Your task to perform on an android device: open app "Upside-Cash back on gas & food" (install if not already installed), go to login, and select forgot password Image 0: 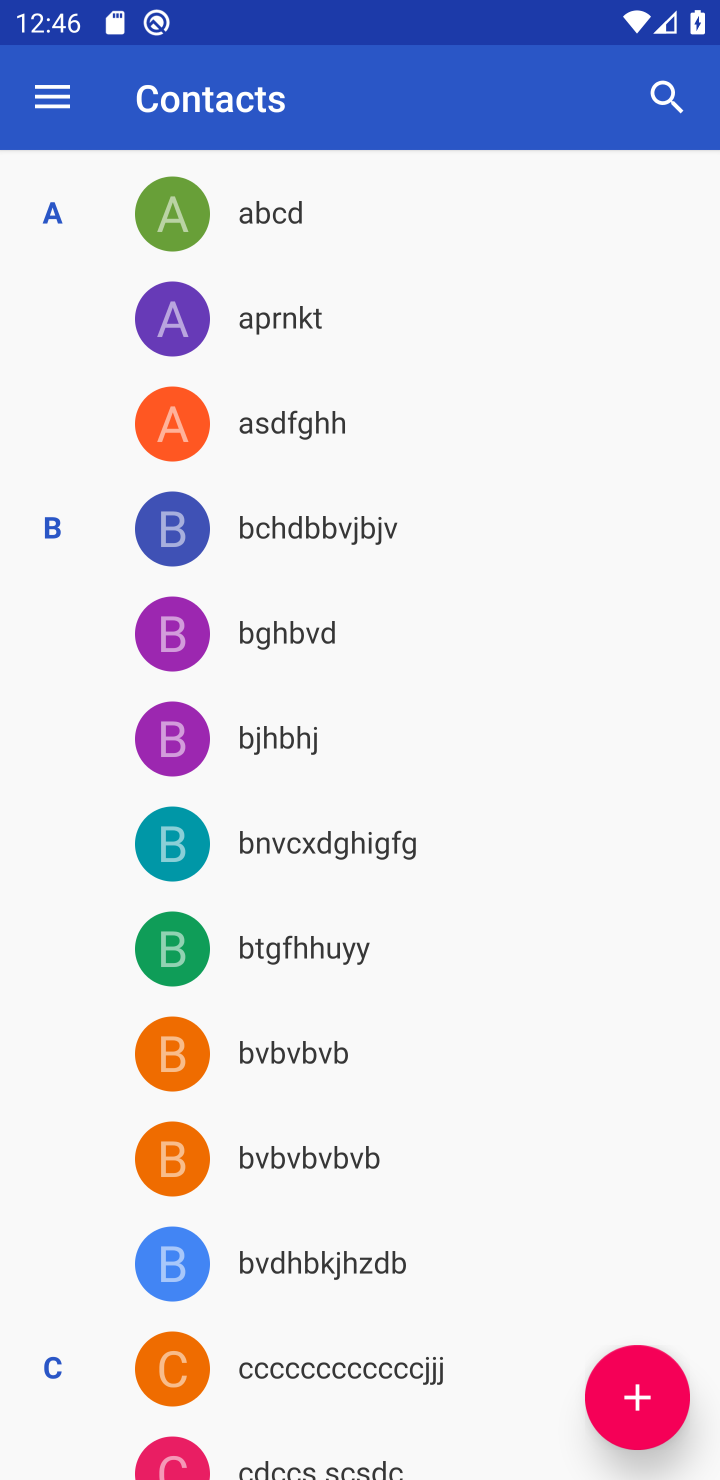
Step 0: press home button
Your task to perform on an android device: open app "Upside-Cash back on gas & food" (install if not already installed), go to login, and select forgot password Image 1: 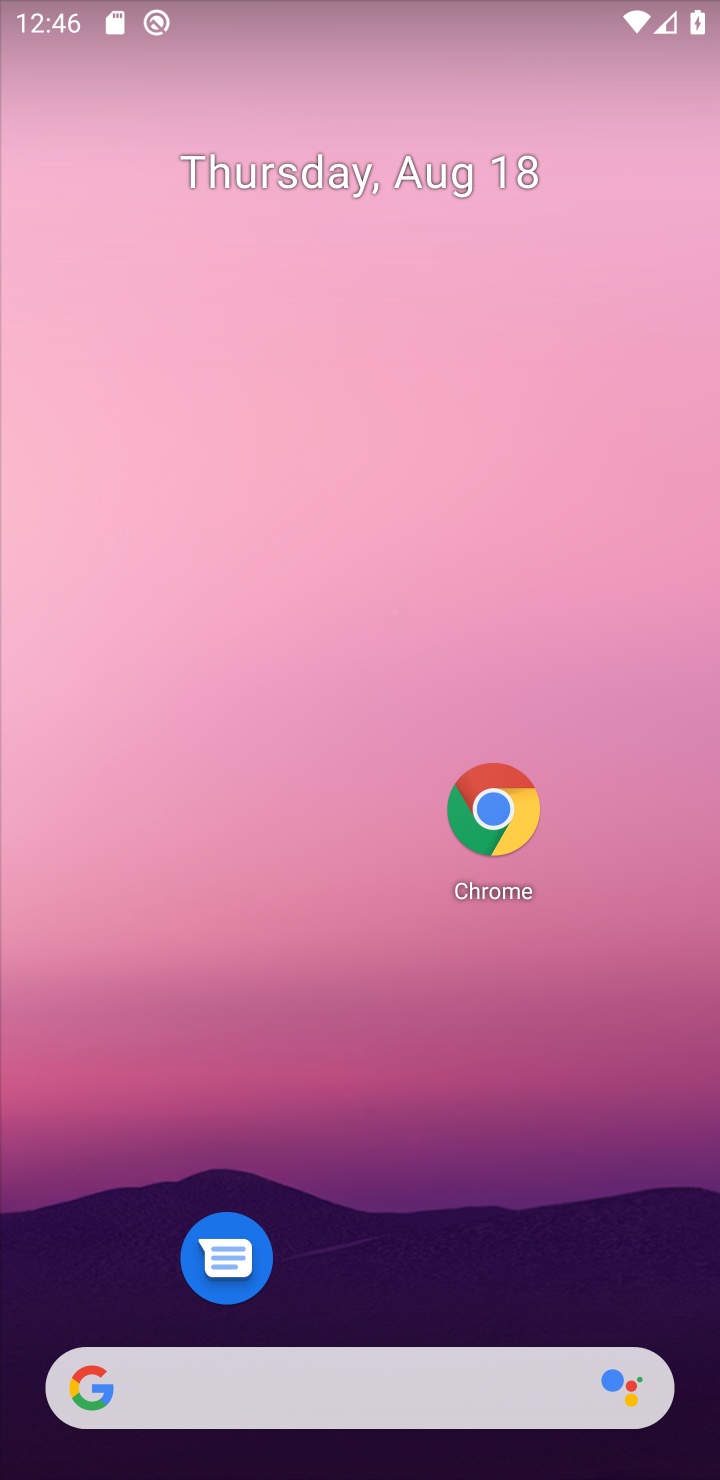
Step 1: drag from (369, 1214) to (405, 350)
Your task to perform on an android device: open app "Upside-Cash back on gas & food" (install if not already installed), go to login, and select forgot password Image 2: 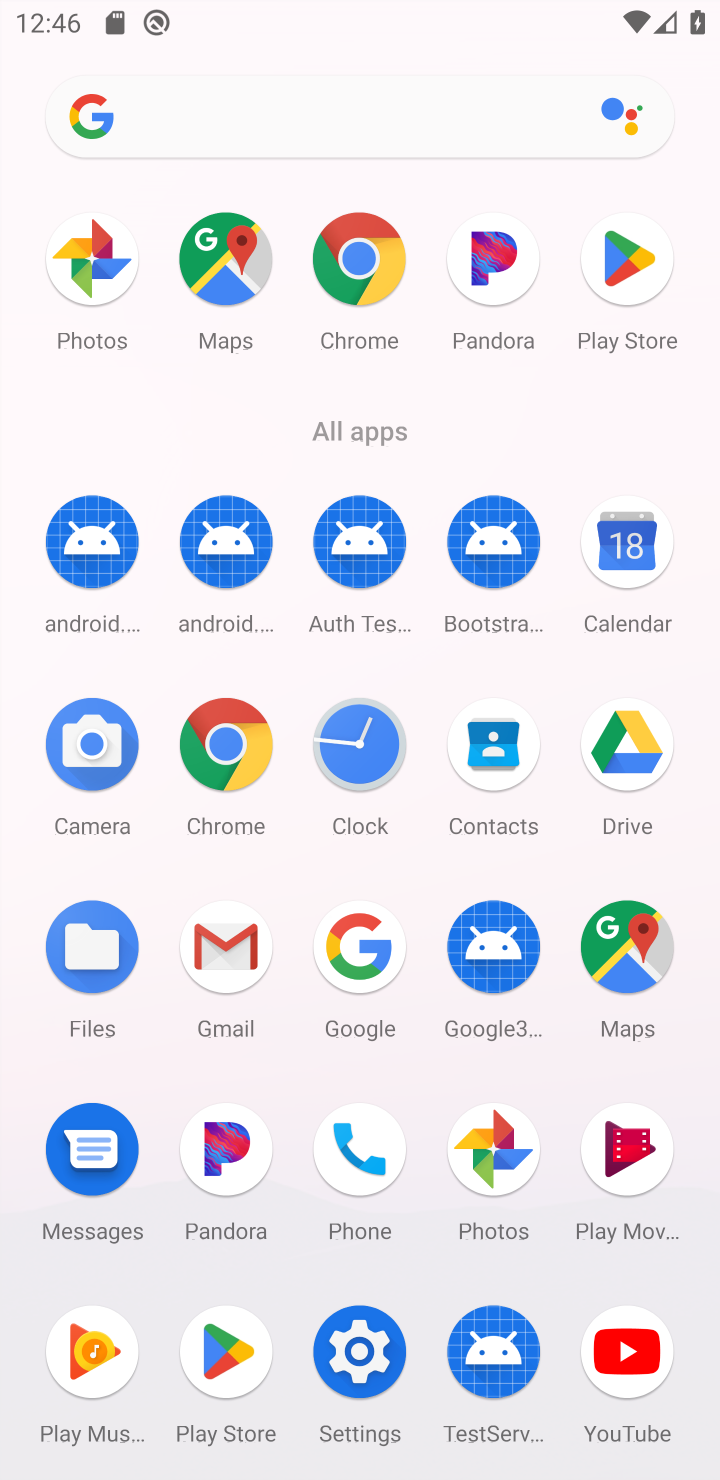
Step 2: click (604, 252)
Your task to perform on an android device: open app "Upside-Cash back on gas & food" (install if not already installed), go to login, and select forgot password Image 3: 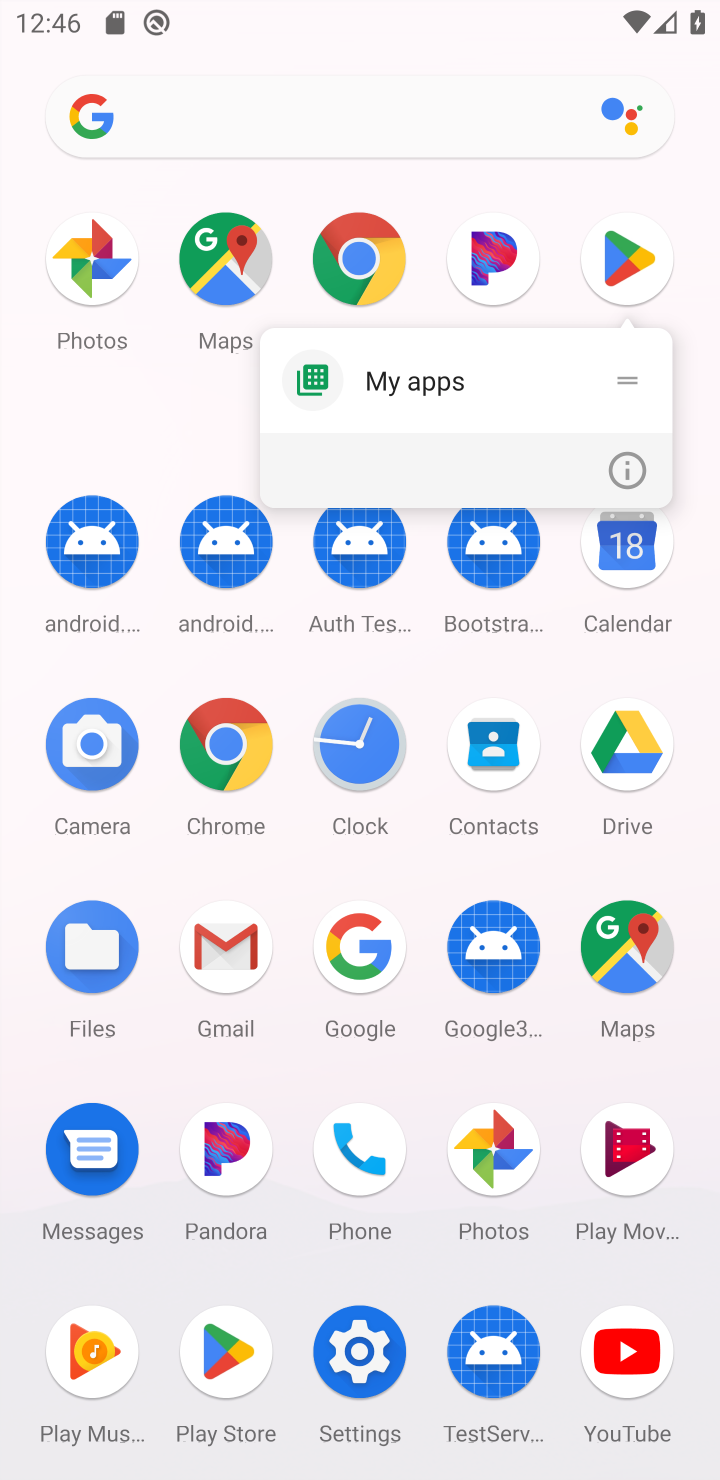
Step 3: click (629, 267)
Your task to perform on an android device: open app "Upside-Cash back on gas & food" (install if not already installed), go to login, and select forgot password Image 4: 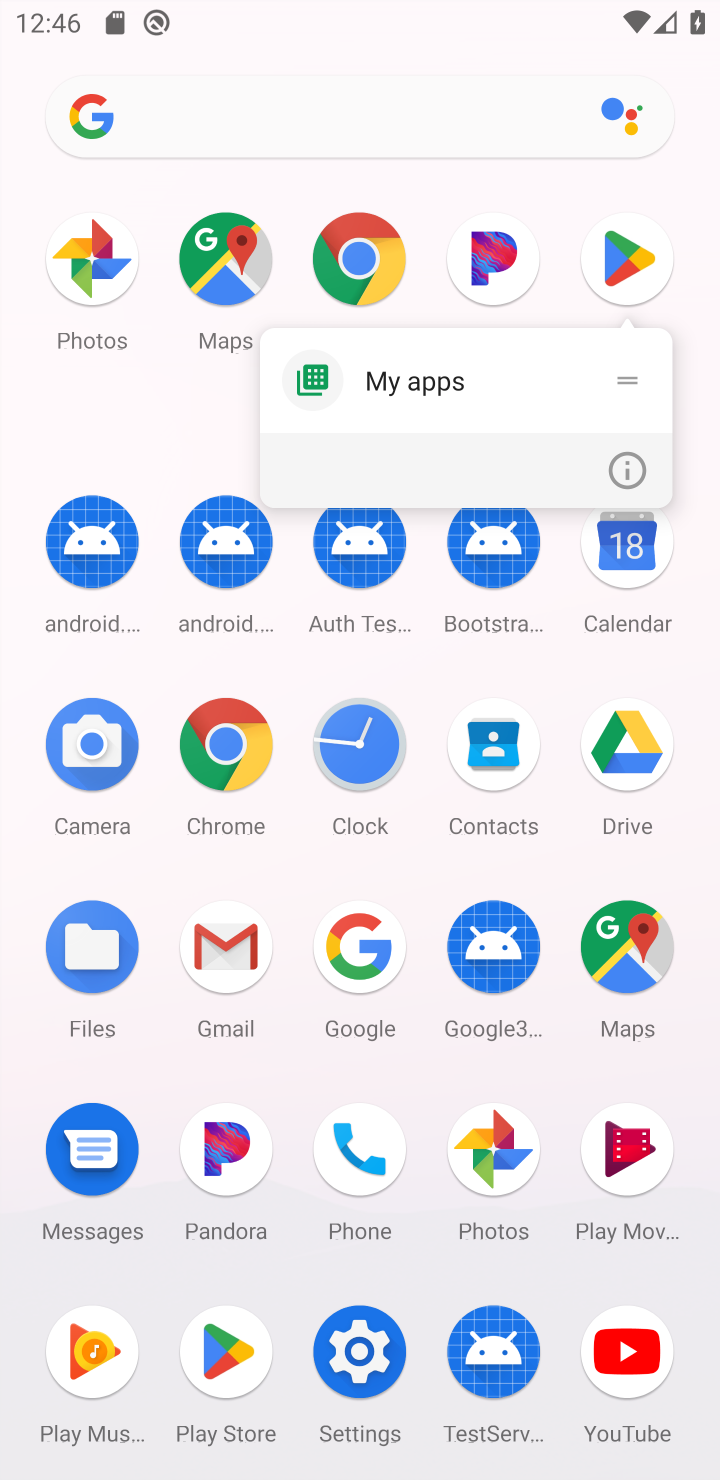
Step 4: click (629, 271)
Your task to perform on an android device: open app "Upside-Cash back on gas & food" (install if not already installed), go to login, and select forgot password Image 5: 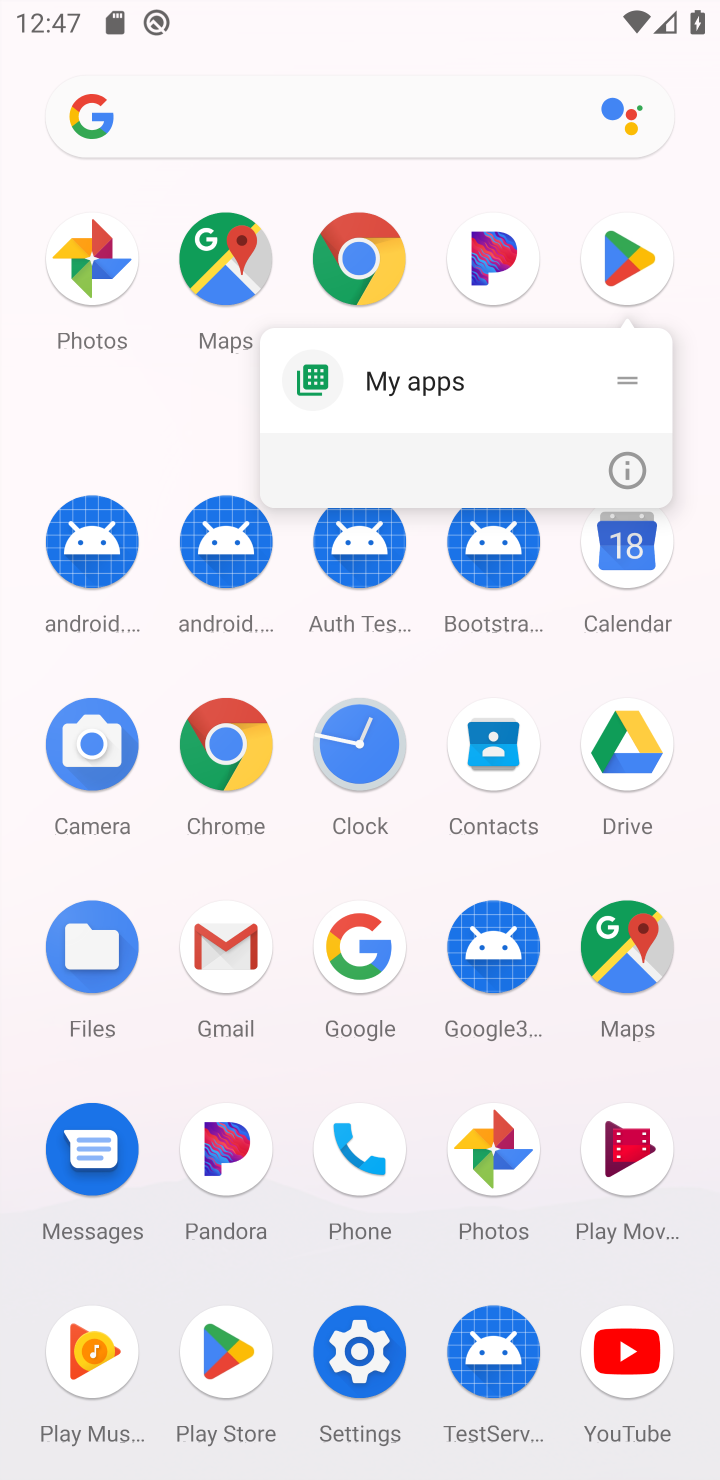
Step 5: click (245, 1343)
Your task to perform on an android device: open app "Upside-Cash back on gas & food" (install if not already installed), go to login, and select forgot password Image 6: 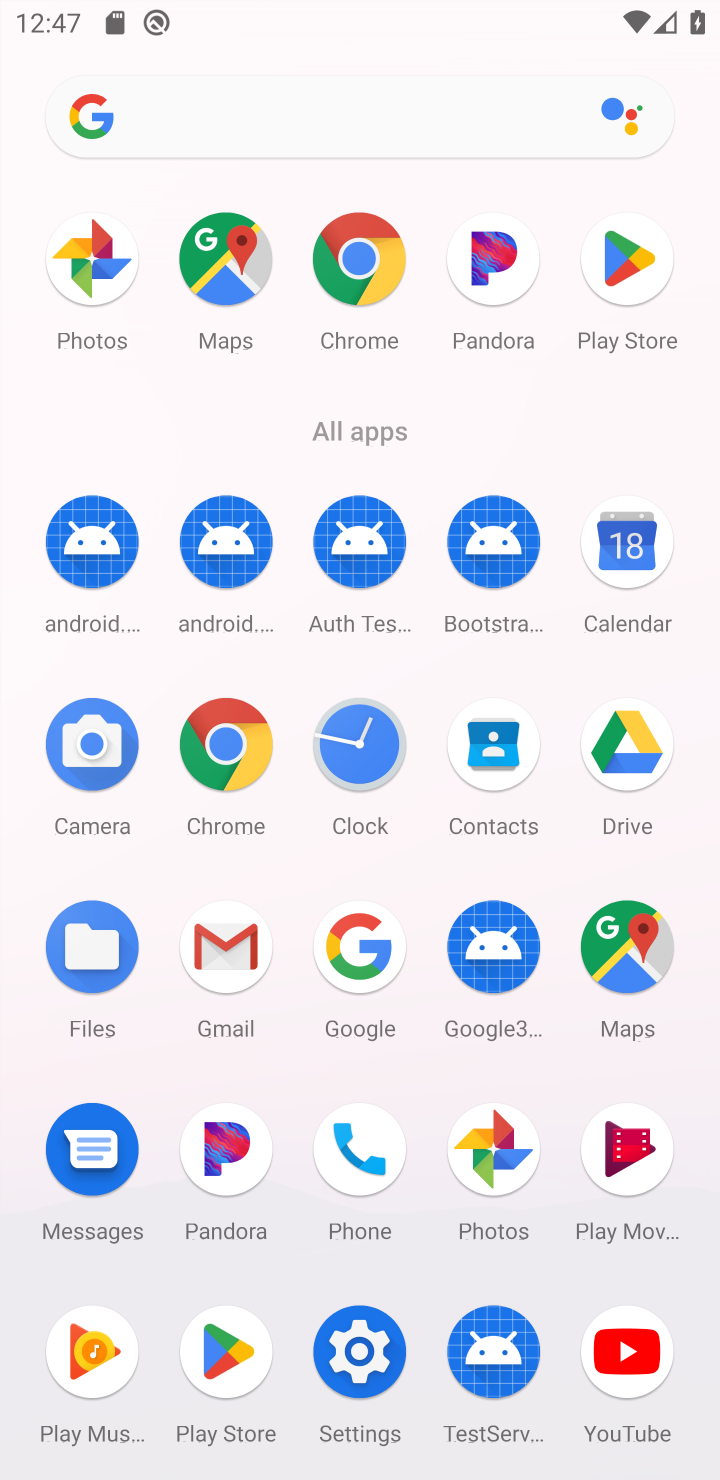
Step 6: click (210, 1327)
Your task to perform on an android device: open app "Upside-Cash back on gas & food" (install if not already installed), go to login, and select forgot password Image 7: 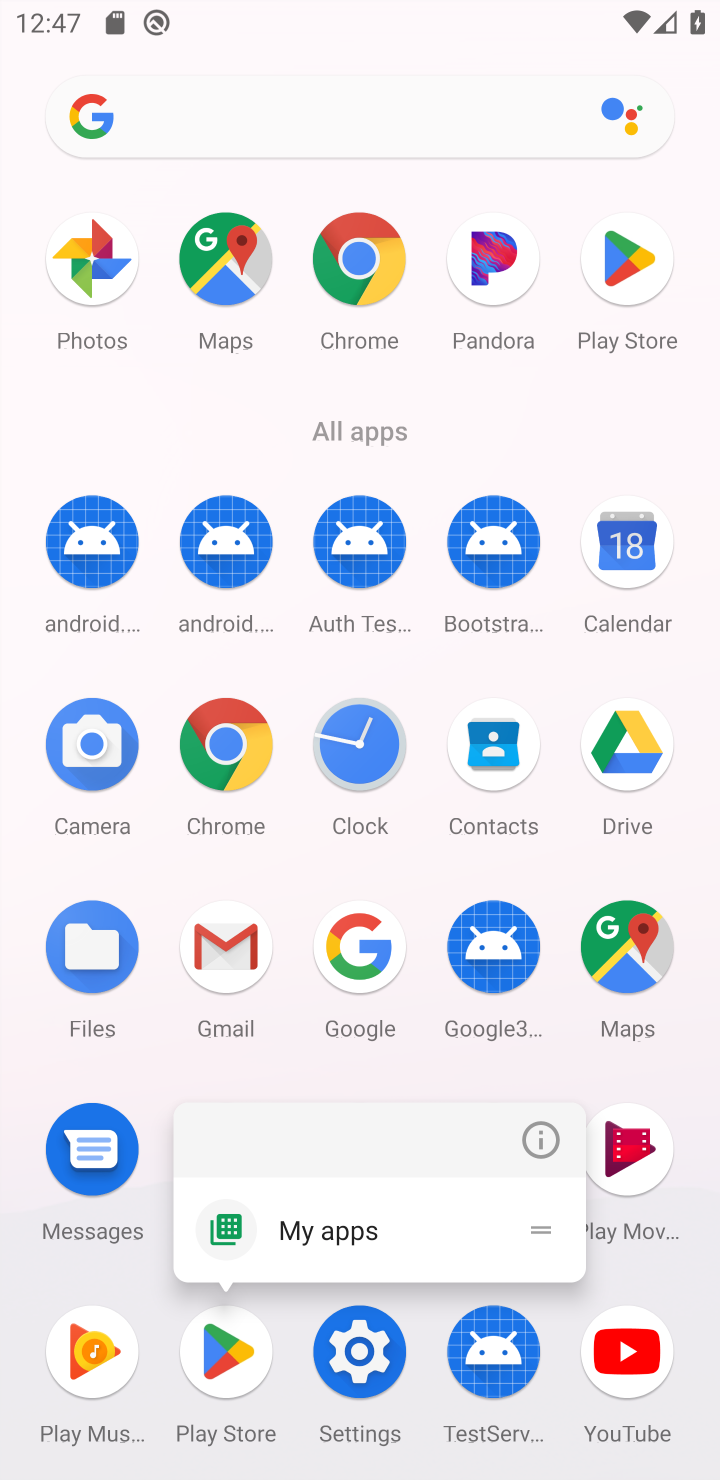
Step 7: click (655, 253)
Your task to perform on an android device: open app "Upside-Cash back on gas & food" (install if not already installed), go to login, and select forgot password Image 8: 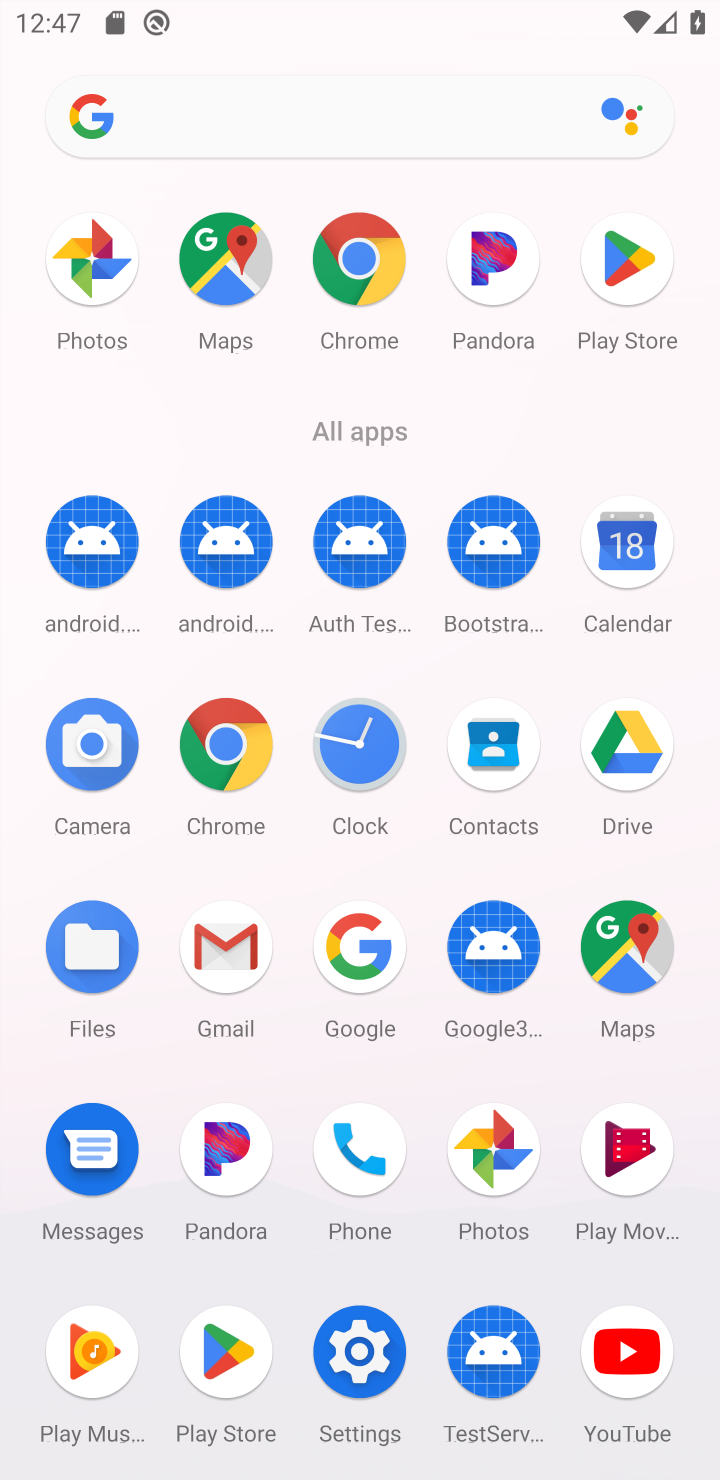
Step 8: click (626, 272)
Your task to perform on an android device: open app "Upside-Cash back on gas & food" (install if not already installed), go to login, and select forgot password Image 9: 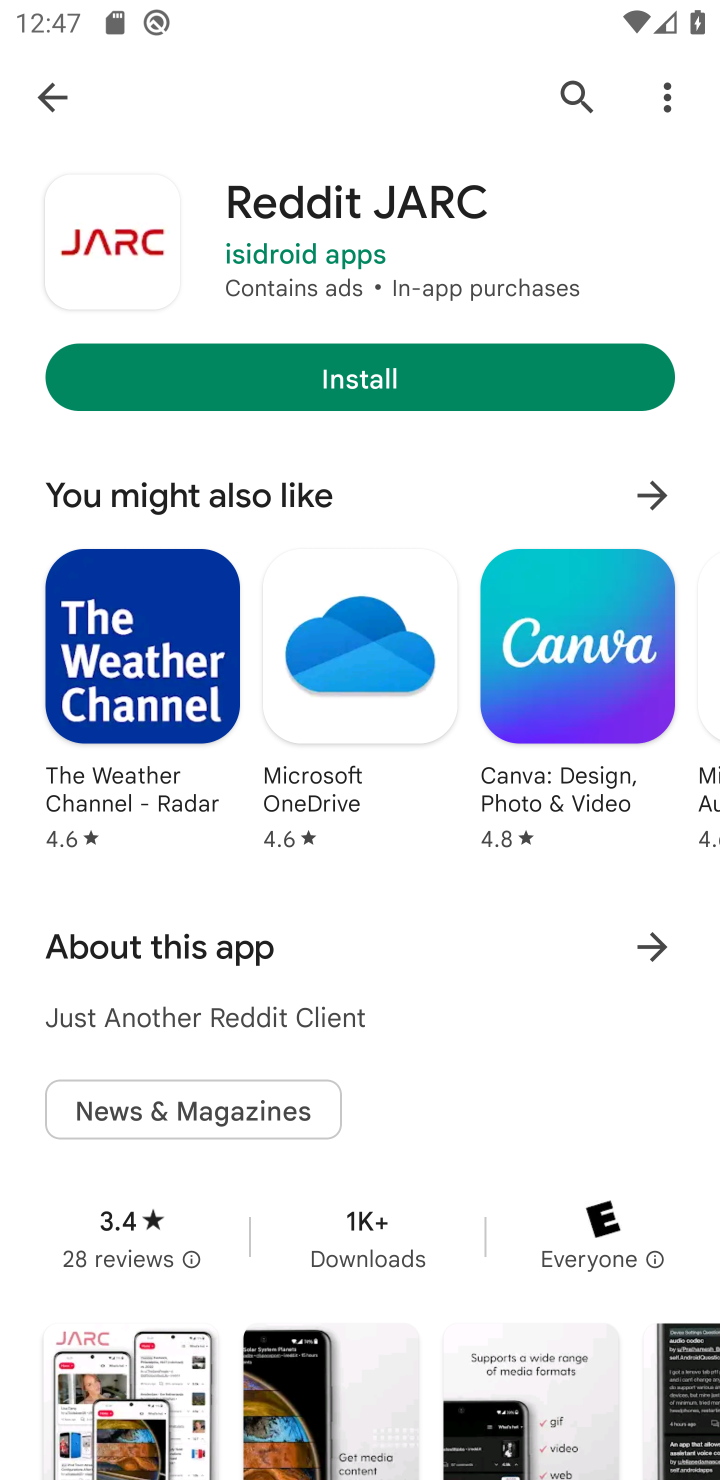
Step 9: click (39, 94)
Your task to perform on an android device: open app "Upside-Cash back on gas & food" (install if not already installed), go to login, and select forgot password Image 10: 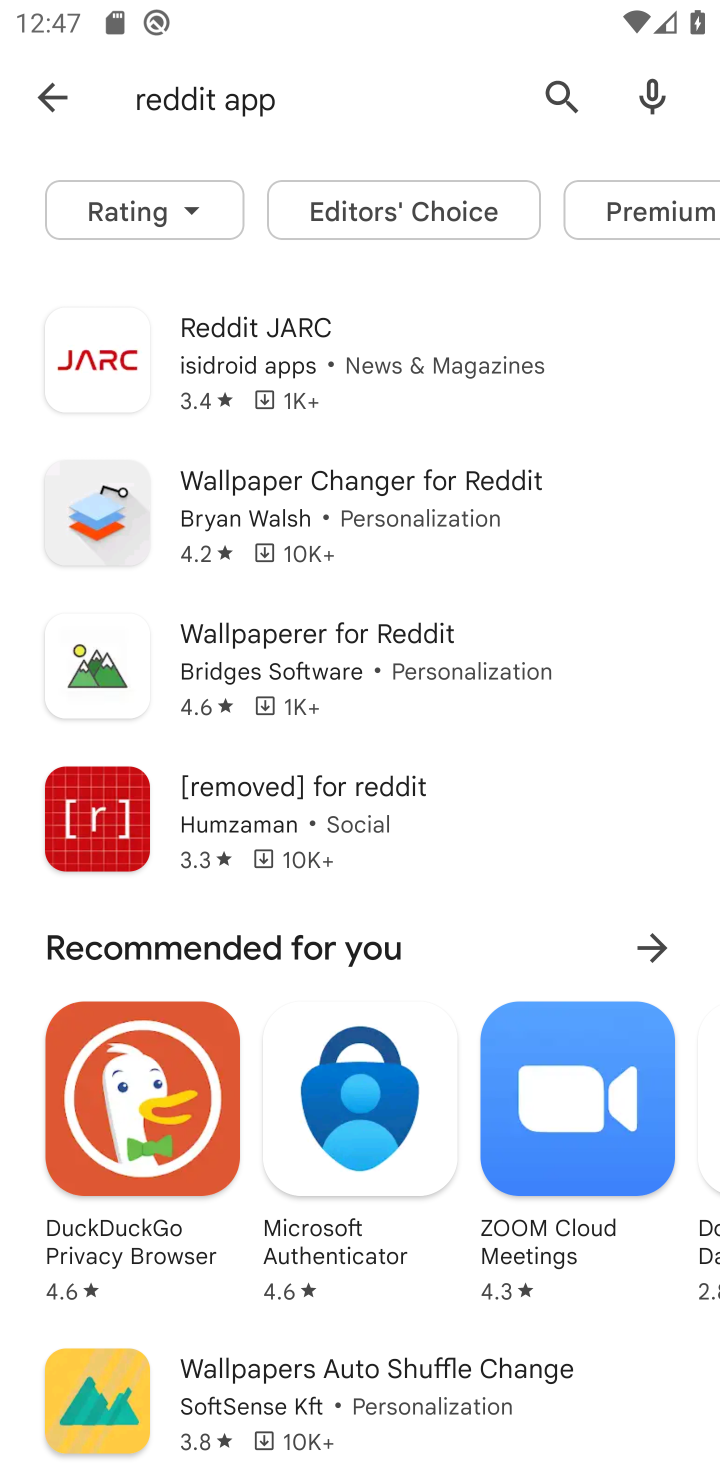
Step 10: click (39, 94)
Your task to perform on an android device: open app "Upside-Cash back on gas & food" (install if not already installed), go to login, and select forgot password Image 11: 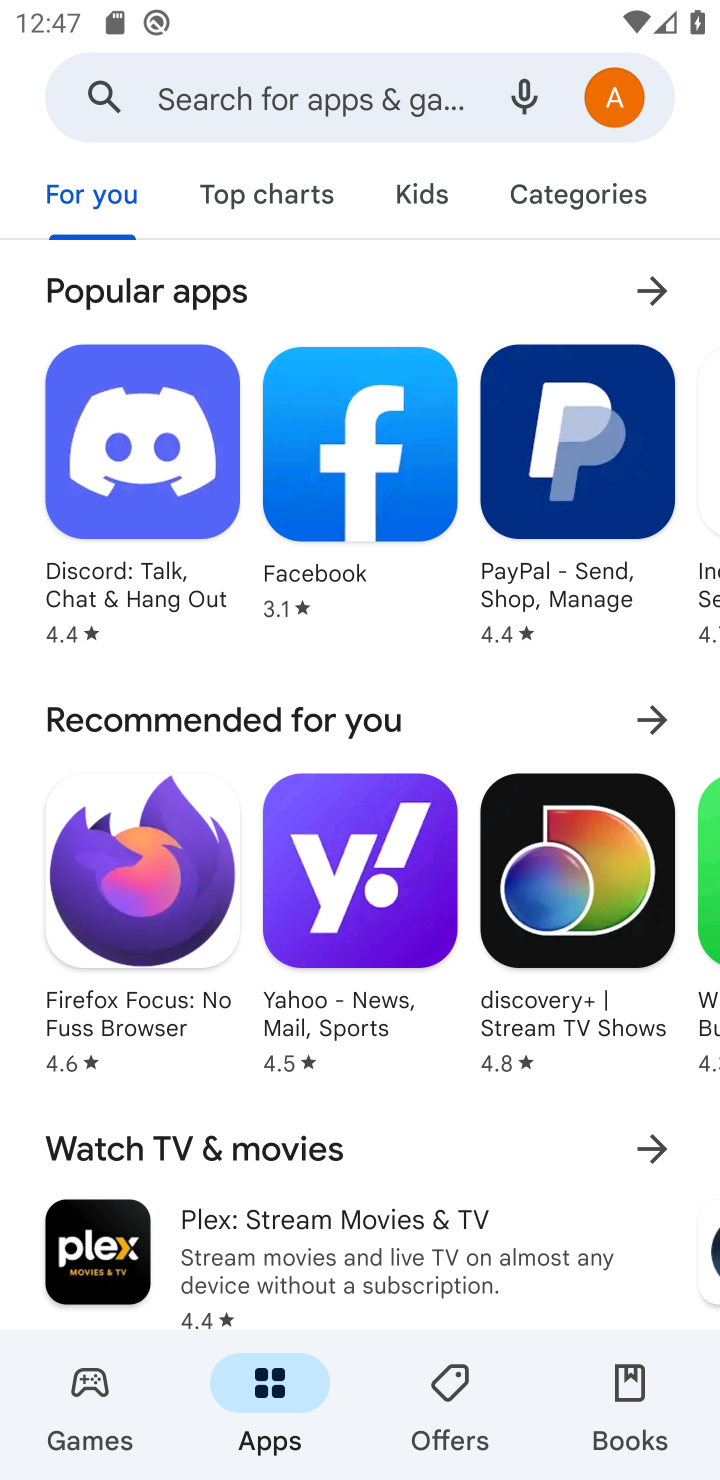
Step 11: click (346, 83)
Your task to perform on an android device: open app "Upside-Cash back on gas & food" (install if not already installed), go to login, and select forgot password Image 12: 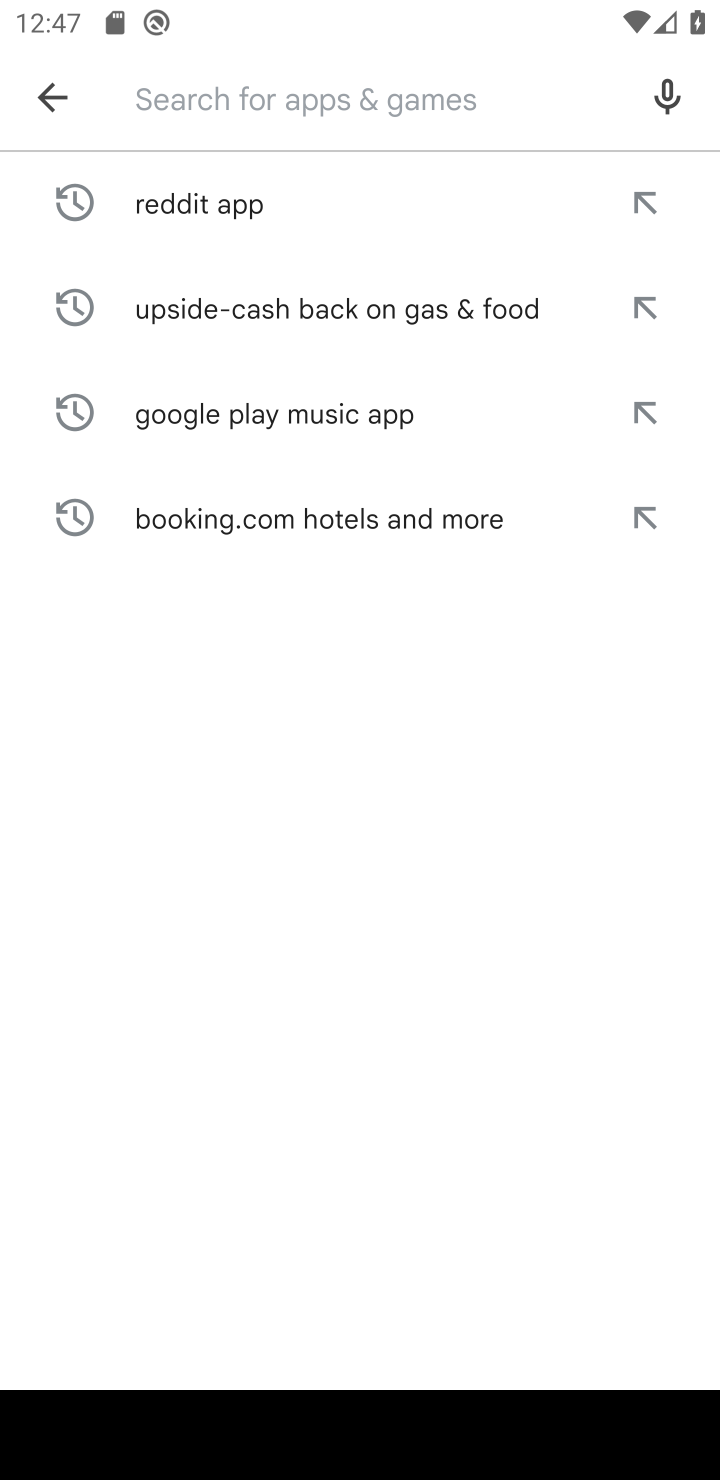
Step 12: type "Upside-Cash back on gas "
Your task to perform on an android device: open app "Upside-Cash back on gas & food" (install if not already installed), go to login, and select forgot password Image 13: 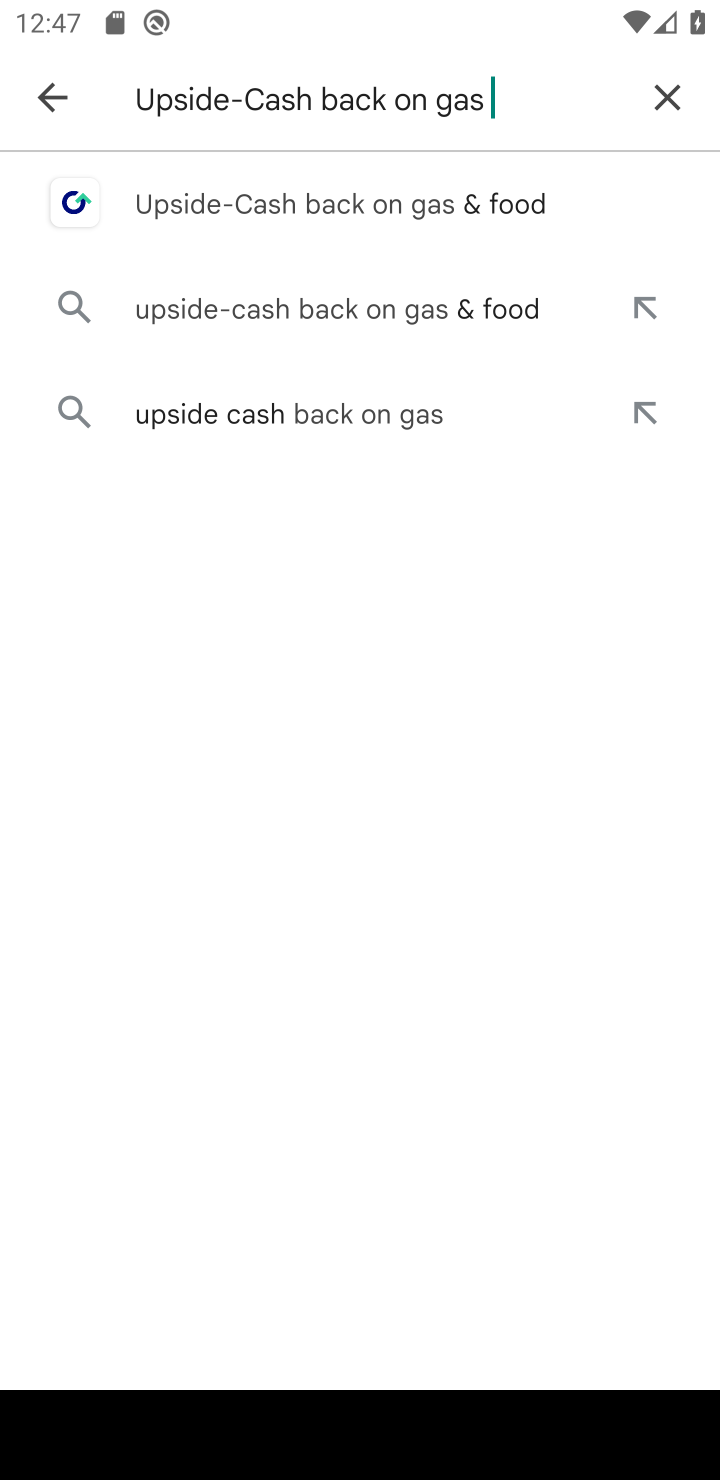
Step 13: click (318, 240)
Your task to perform on an android device: open app "Upside-Cash back on gas & food" (install if not already installed), go to login, and select forgot password Image 14: 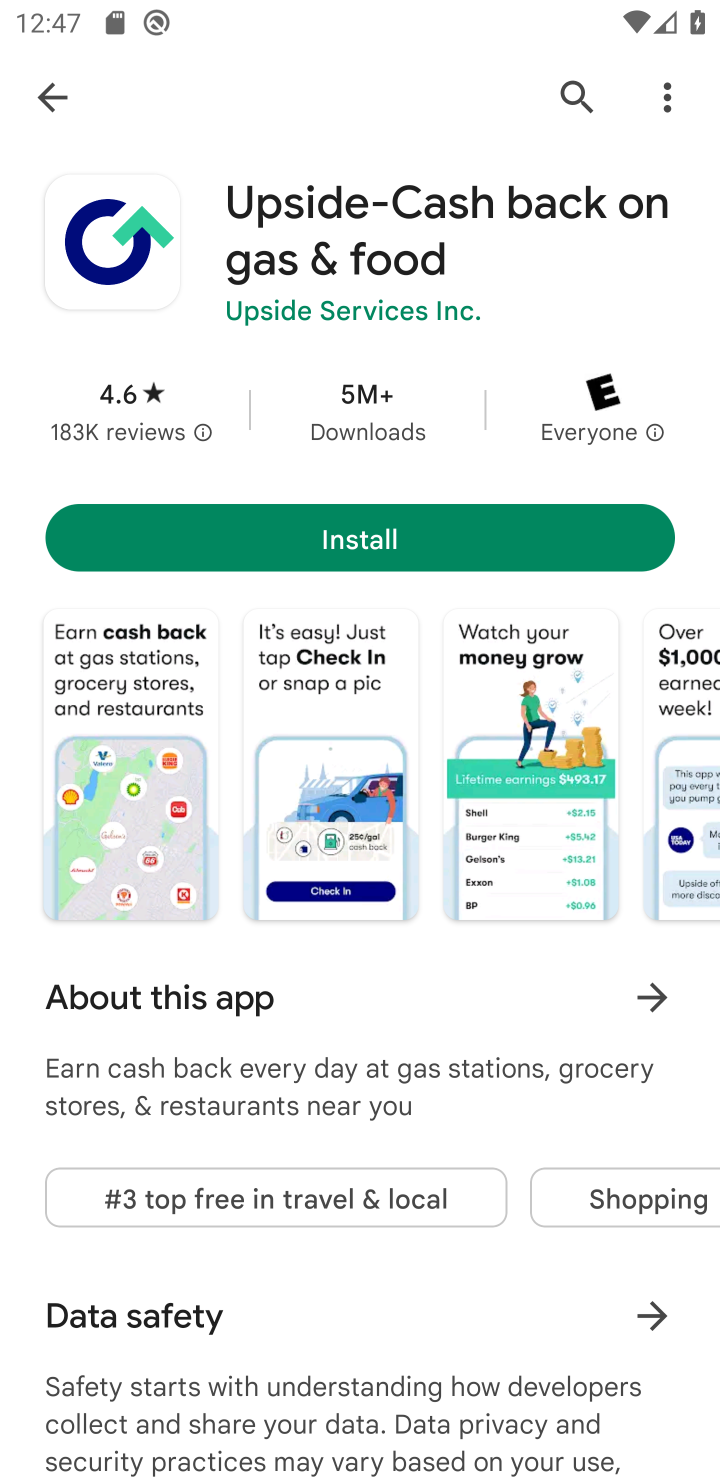
Step 14: click (430, 528)
Your task to perform on an android device: open app "Upside-Cash back on gas & food" (install if not already installed), go to login, and select forgot password Image 15: 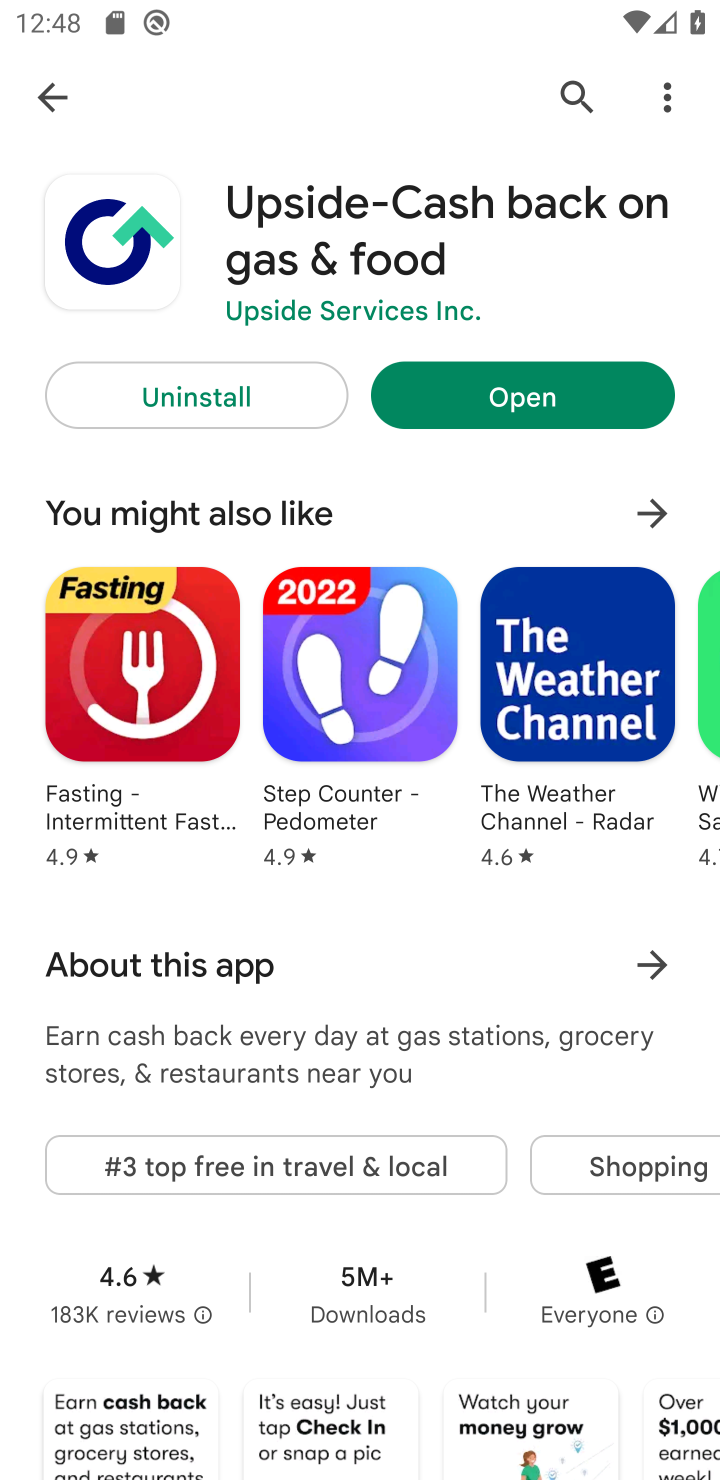
Step 15: click (560, 369)
Your task to perform on an android device: open app "Upside-Cash back on gas & food" (install if not already installed), go to login, and select forgot password Image 16: 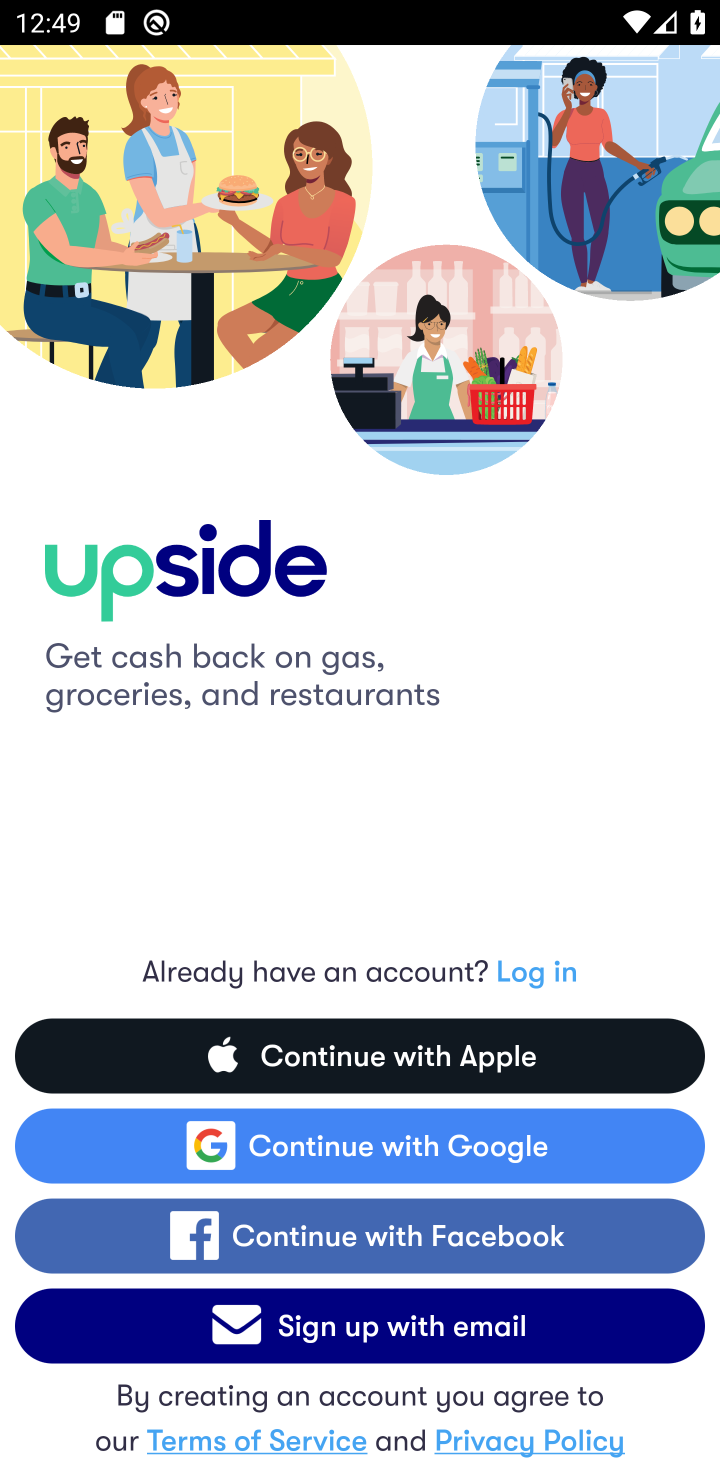
Step 16: task complete